Your task to perform on an android device: turn off improve location accuracy Image 0: 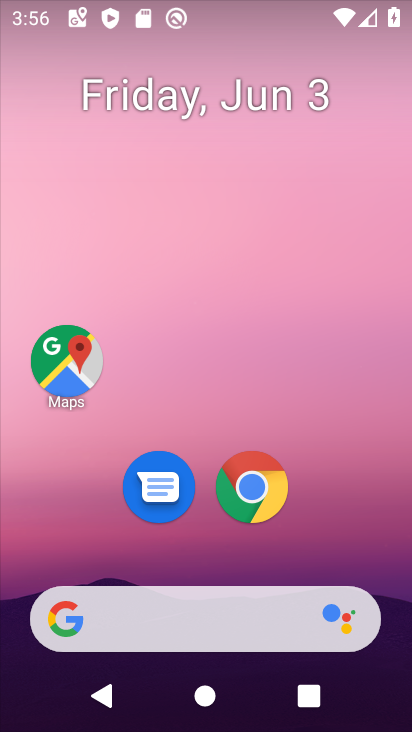
Step 0: drag from (191, 573) to (282, 129)
Your task to perform on an android device: turn off improve location accuracy Image 1: 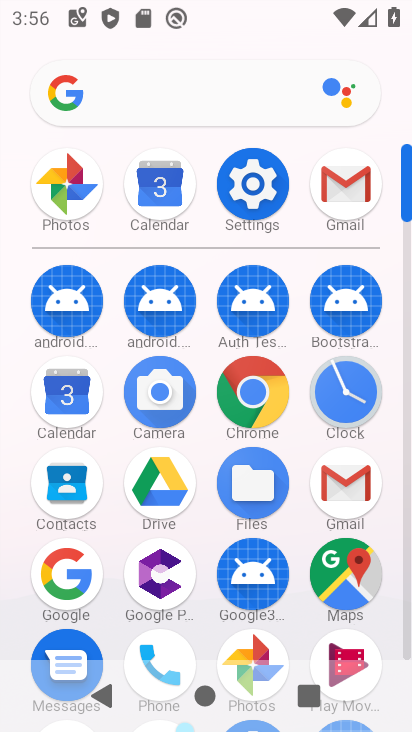
Step 1: click (269, 200)
Your task to perform on an android device: turn off improve location accuracy Image 2: 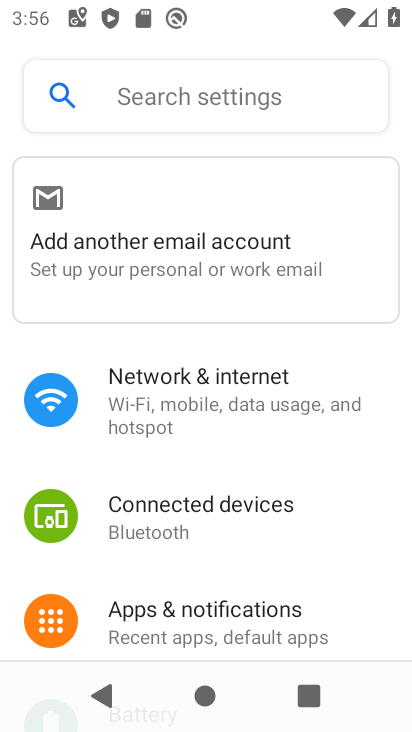
Step 2: drag from (167, 573) to (336, 50)
Your task to perform on an android device: turn off improve location accuracy Image 3: 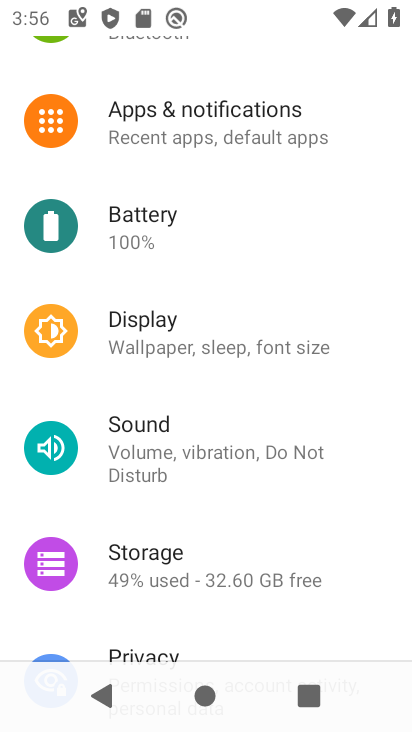
Step 3: drag from (230, 623) to (257, 123)
Your task to perform on an android device: turn off improve location accuracy Image 4: 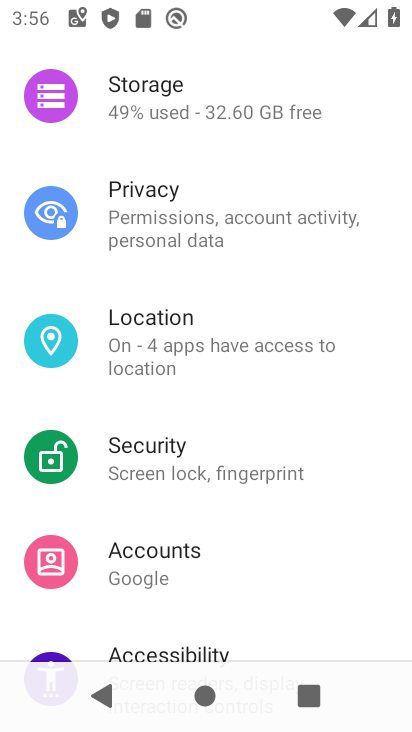
Step 4: drag from (193, 543) to (246, 247)
Your task to perform on an android device: turn off improve location accuracy Image 5: 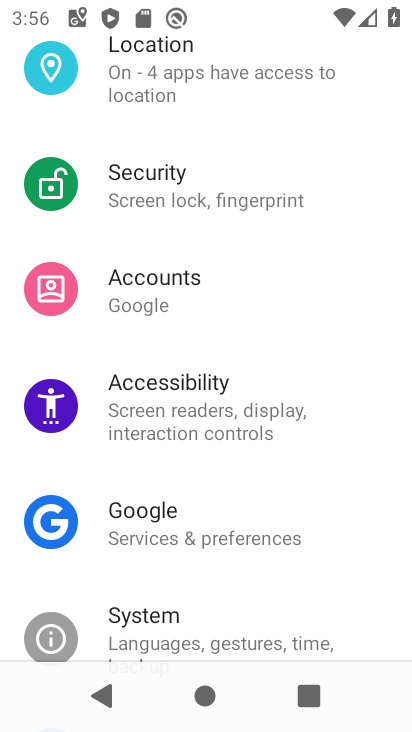
Step 5: click (198, 80)
Your task to perform on an android device: turn off improve location accuracy Image 6: 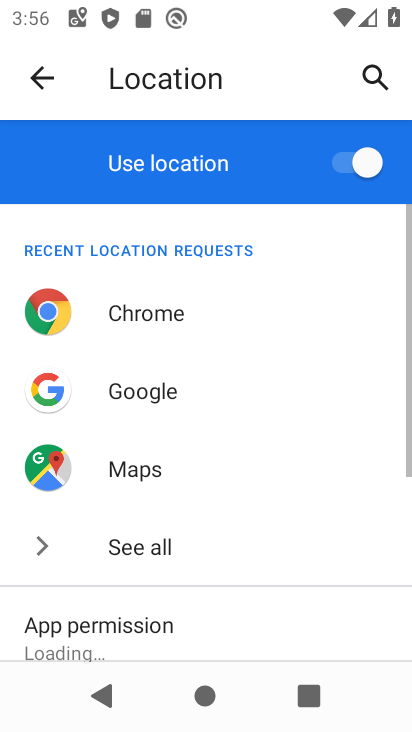
Step 6: drag from (237, 524) to (307, 142)
Your task to perform on an android device: turn off improve location accuracy Image 7: 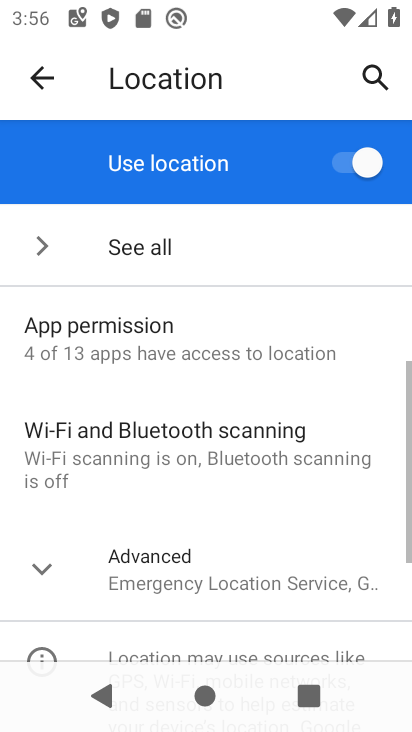
Step 7: click (152, 583)
Your task to perform on an android device: turn off improve location accuracy Image 8: 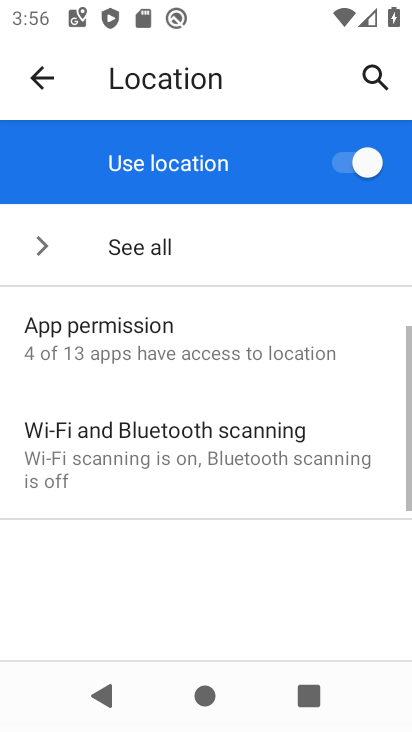
Step 8: drag from (155, 575) to (234, 34)
Your task to perform on an android device: turn off improve location accuracy Image 9: 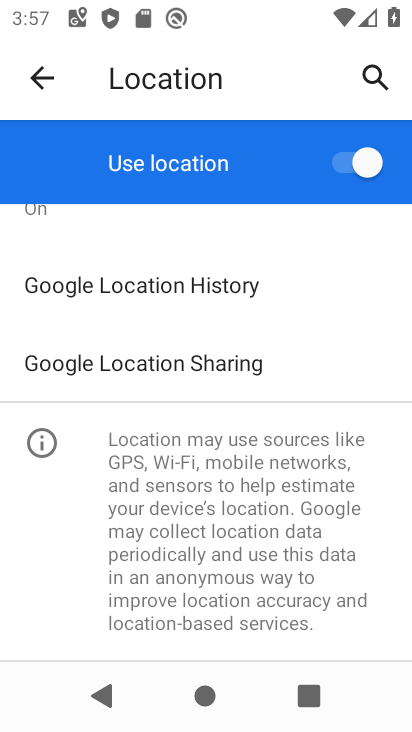
Step 9: drag from (211, 290) to (230, 620)
Your task to perform on an android device: turn off improve location accuracy Image 10: 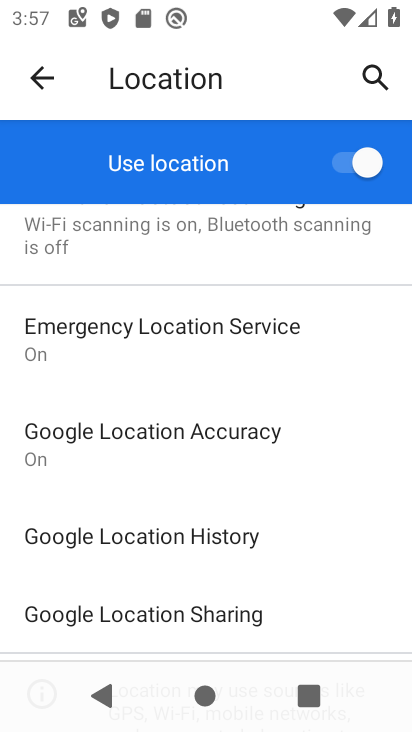
Step 10: click (166, 432)
Your task to perform on an android device: turn off improve location accuracy Image 11: 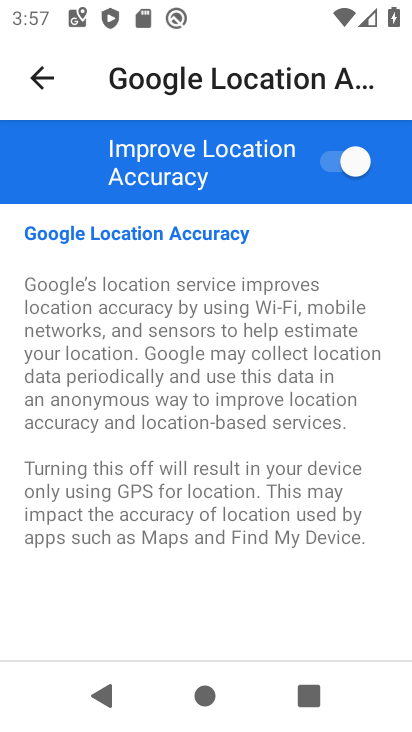
Step 11: click (350, 155)
Your task to perform on an android device: turn off improve location accuracy Image 12: 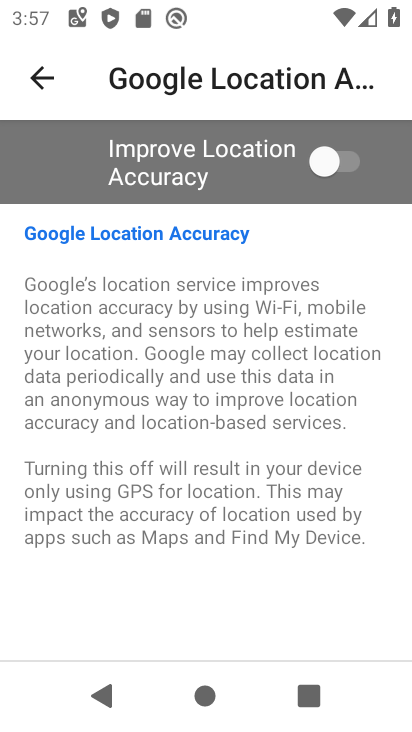
Step 12: task complete